Your task to perform on an android device: What's on my calendar tomorrow? Image 0: 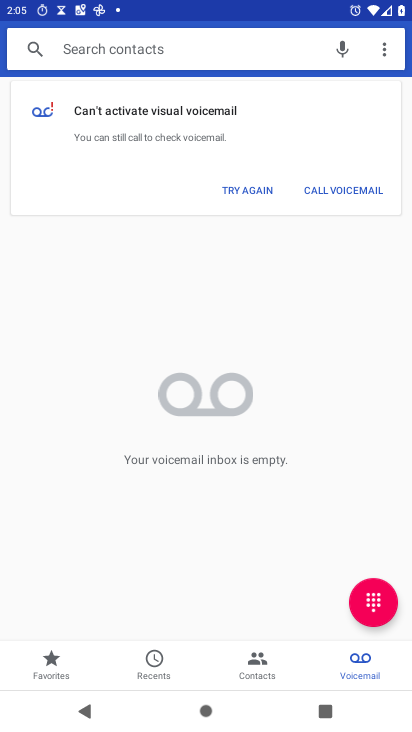
Step 0: press home button
Your task to perform on an android device: What's on my calendar tomorrow? Image 1: 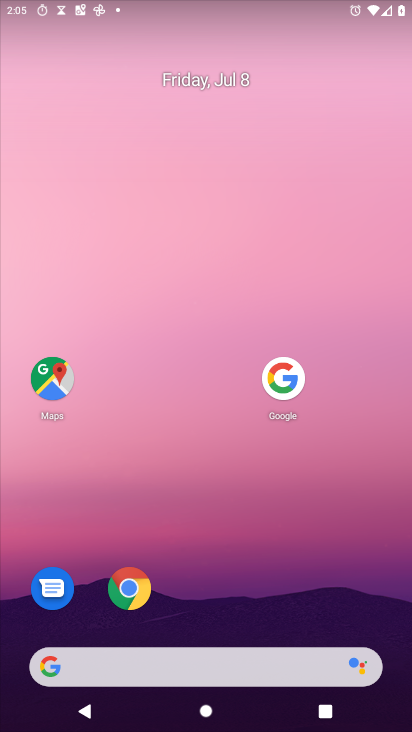
Step 1: drag from (178, 664) to (280, 111)
Your task to perform on an android device: What's on my calendar tomorrow? Image 2: 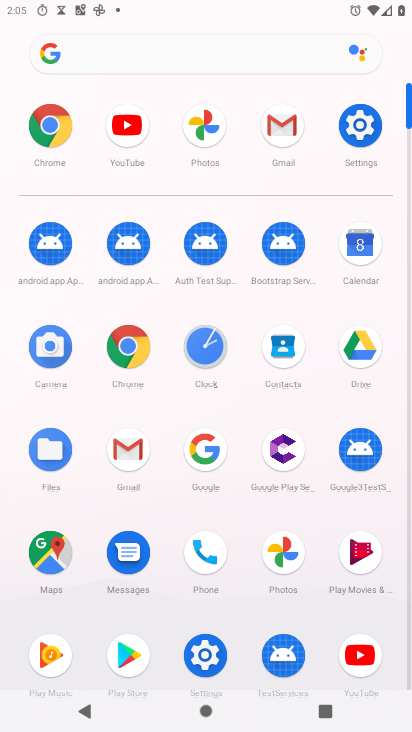
Step 2: click (352, 254)
Your task to perform on an android device: What's on my calendar tomorrow? Image 3: 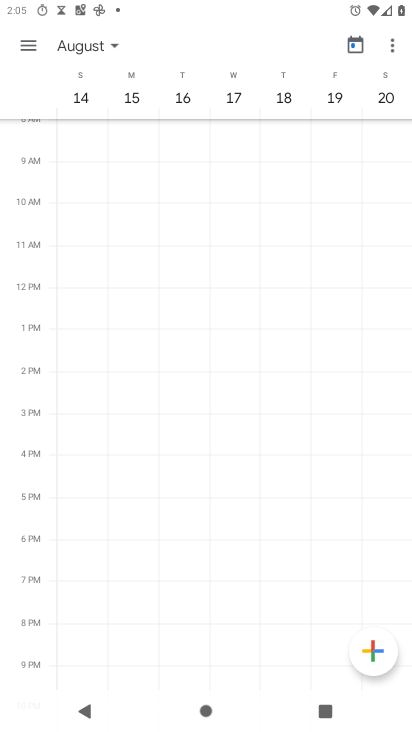
Step 3: click (75, 42)
Your task to perform on an android device: What's on my calendar tomorrow? Image 4: 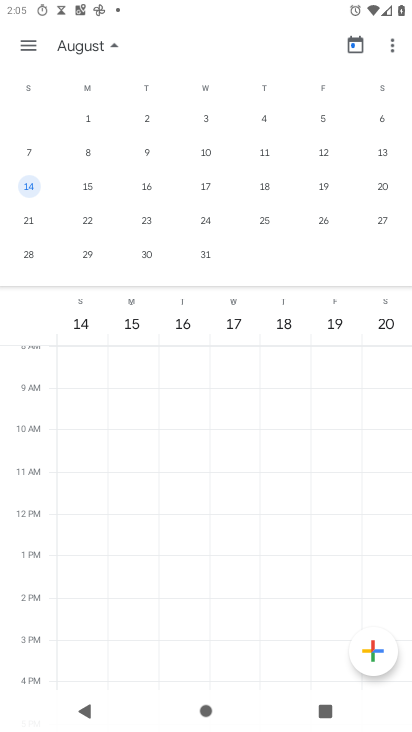
Step 4: drag from (73, 170) to (411, 183)
Your task to perform on an android device: What's on my calendar tomorrow? Image 5: 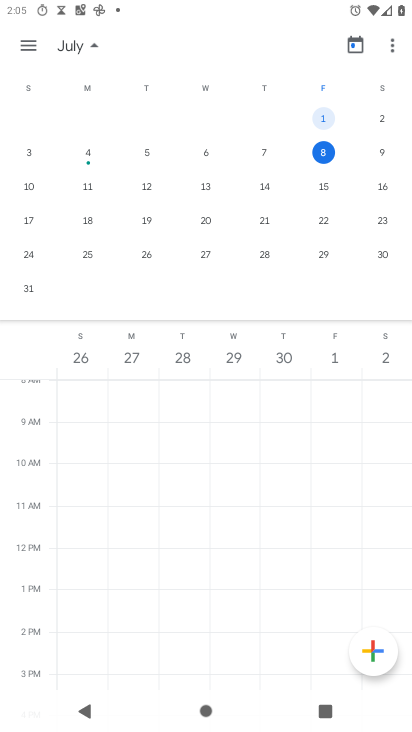
Step 5: click (378, 151)
Your task to perform on an android device: What's on my calendar tomorrow? Image 6: 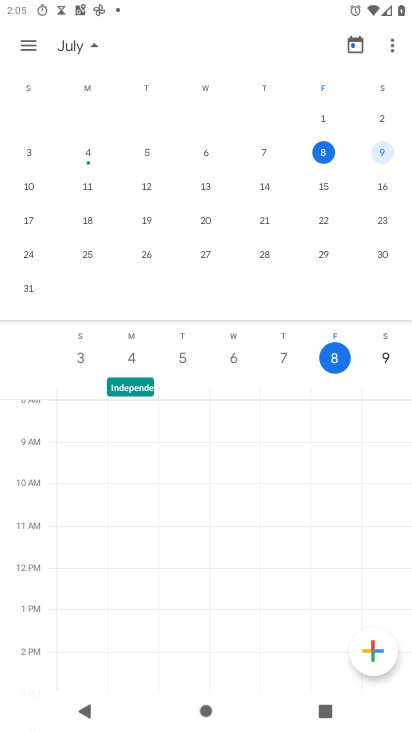
Step 6: click (33, 44)
Your task to perform on an android device: What's on my calendar tomorrow? Image 7: 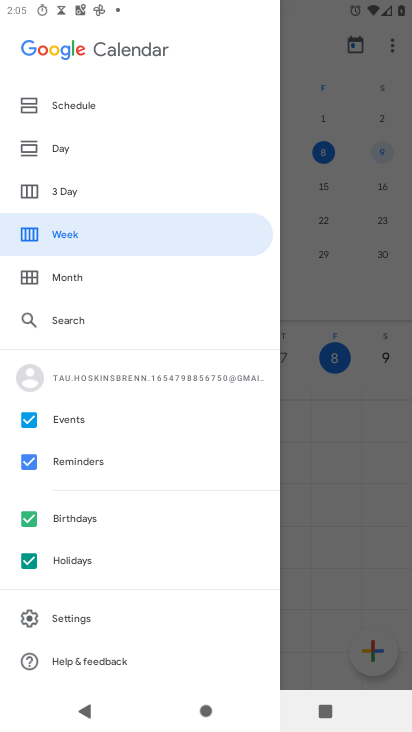
Step 7: click (79, 102)
Your task to perform on an android device: What's on my calendar tomorrow? Image 8: 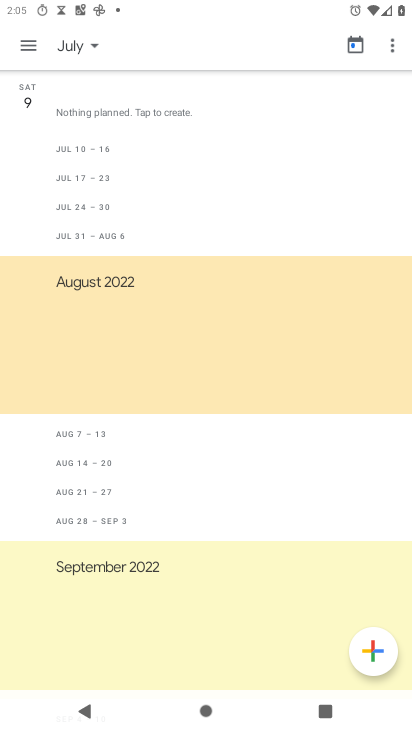
Step 8: task complete